Your task to perform on an android device: turn off sleep mode Image 0: 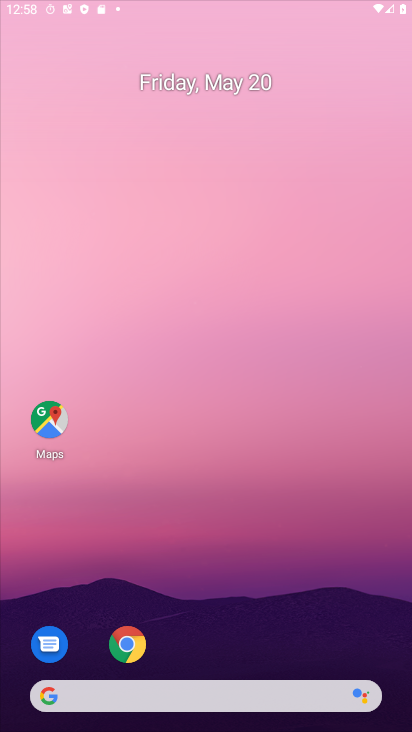
Step 0: drag from (231, 551) to (298, 32)
Your task to perform on an android device: turn off sleep mode Image 1: 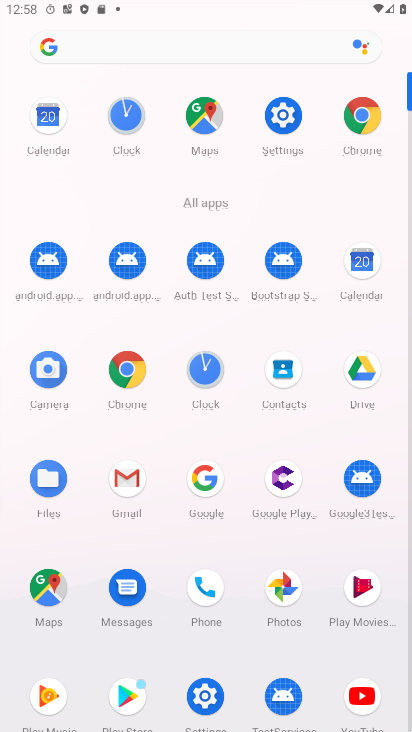
Step 1: click (275, 118)
Your task to perform on an android device: turn off sleep mode Image 2: 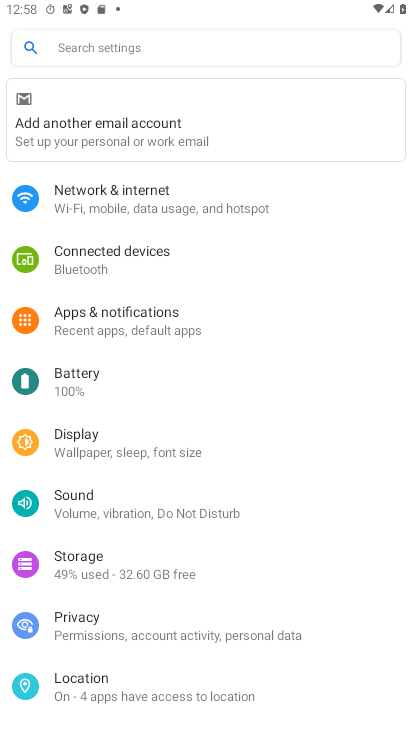
Step 2: drag from (190, 565) to (162, 280)
Your task to perform on an android device: turn off sleep mode Image 3: 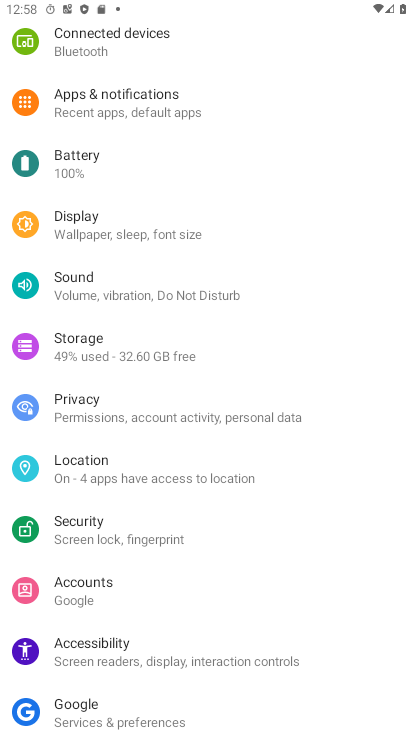
Step 3: click (123, 241)
Your task to perform on an android device: turn off sleep mode Image 4: 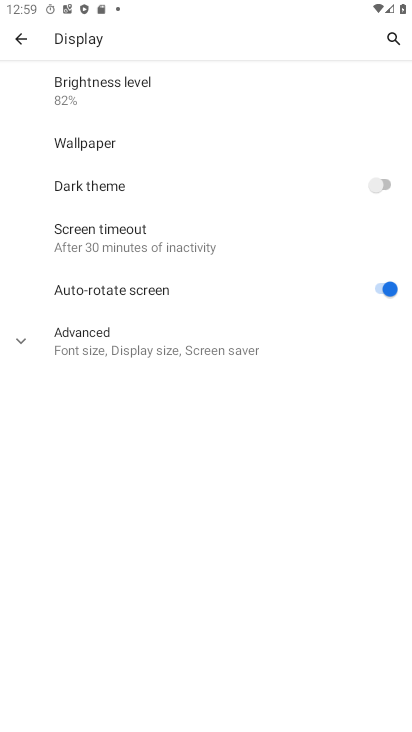
Step 4: click (95, 238)
Your task to perform on an android device: turn off sleep mode Image 5: 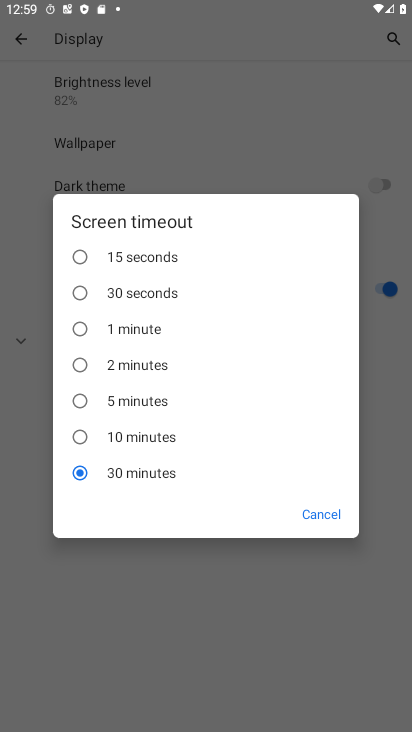
Step 5: task complete